Your task to perform on an android device: Show the shopping cart on newegg.com. Add "razer naga" to the cart on newegg.com Image 0: 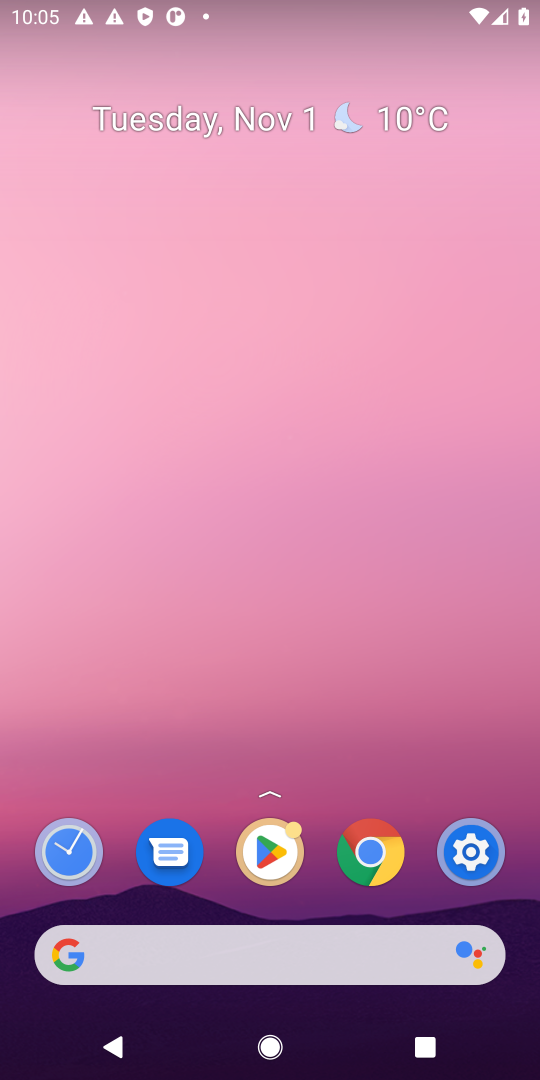
Step 0: press home button
Your task to perform on an android device: Show the shopping cart on newegg.com. Add "razer naga" to the cart on newegg.com Image 1: 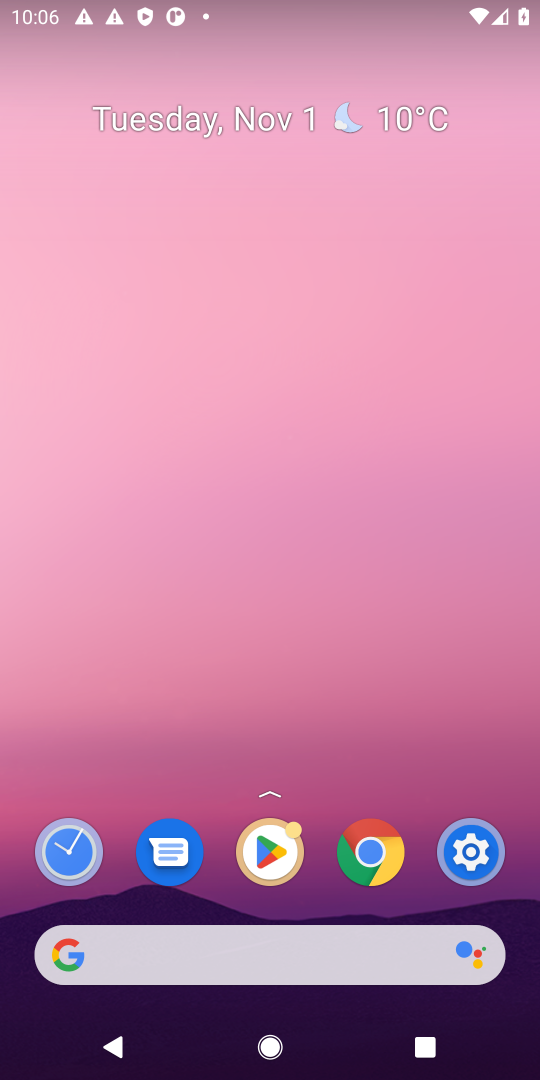
Step 1: click (377, 860)
Your task to perform on an android device: Show the shopping cart on newegg.com. Add "razer naga" to the cart on newegg.com Image 2: 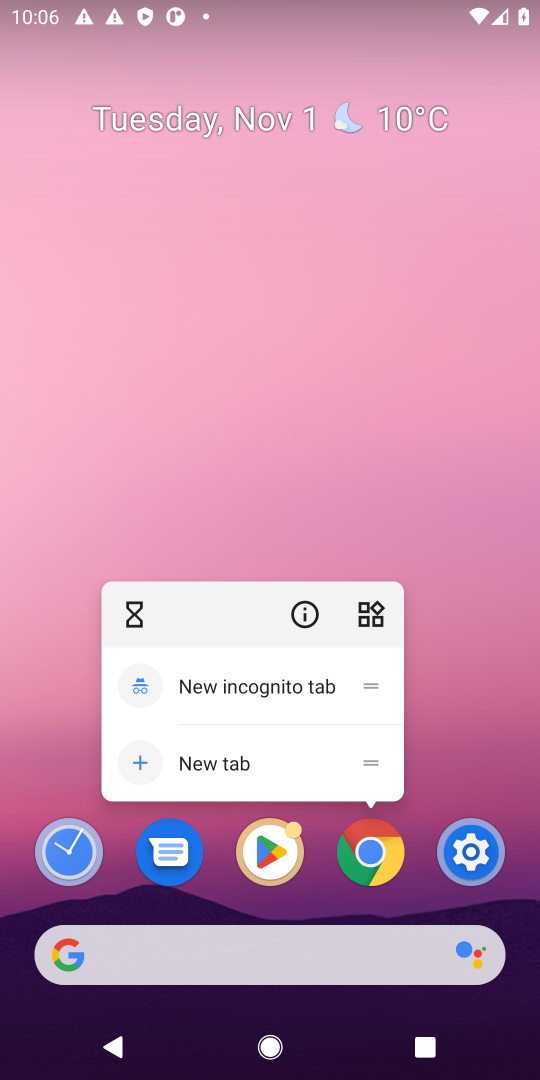
Step 2: click (377, 860)
Your task to perform on an android device: Show the shopping cart on newegg.com. Add "razer naga" to the cart on newegg.com Image 3: 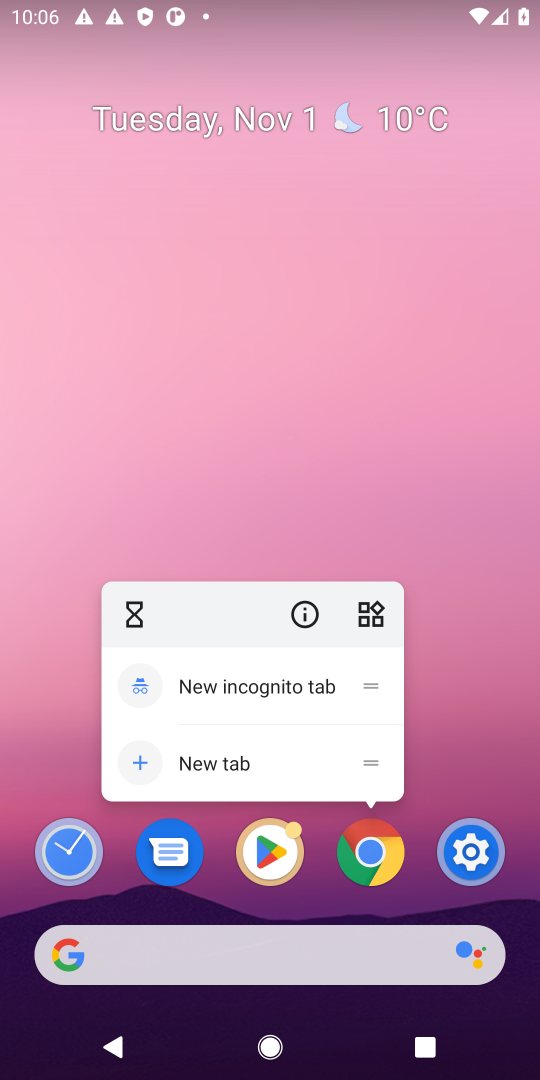
Step 3: click (382, 850)
Your task to perform on an android device: Show the shopping cart on newegg.com. Add "razer naga" to the cart on newegg.com Image 4: 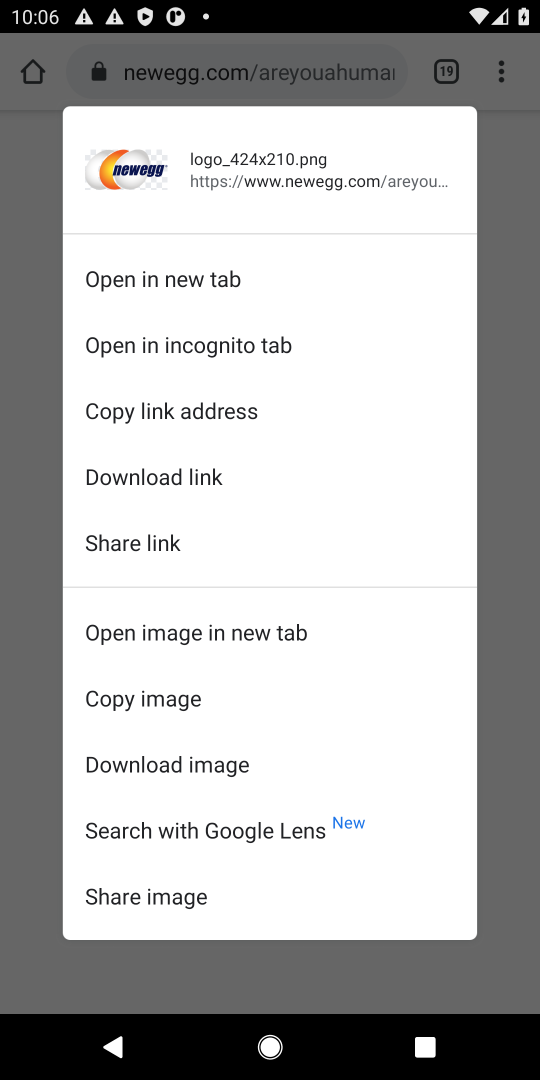
Step 4: press back button
Your task to perform on an android device: Show the shopping cart on newegg.com. Add "razer naga" to the cart on newegg.com Image 5: 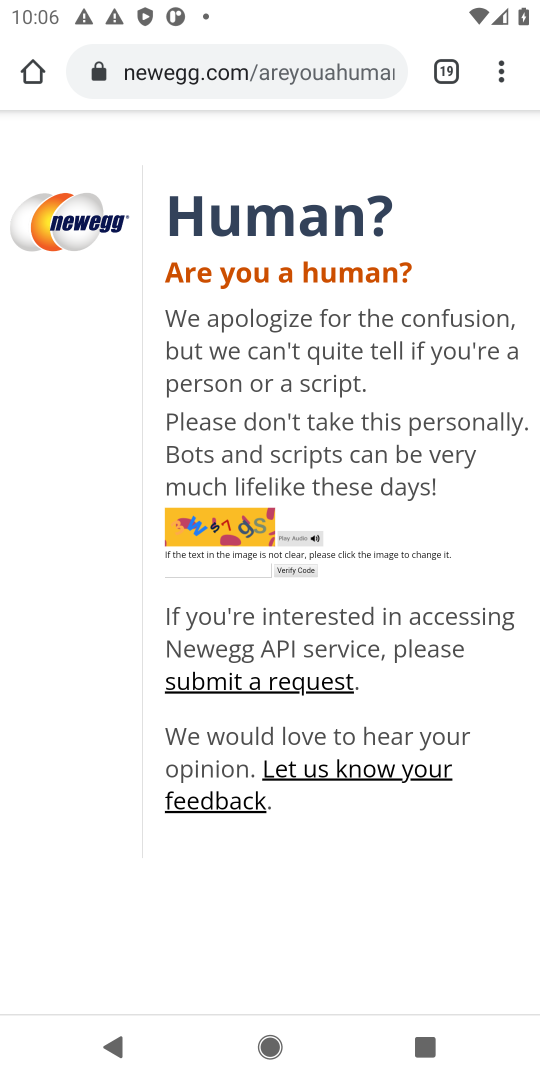
Step 5: press back button
Your task to perform on an android device: Show the shopping cart on newegg.com. Add "razer naga" to the cart on newegg.com Image 6: 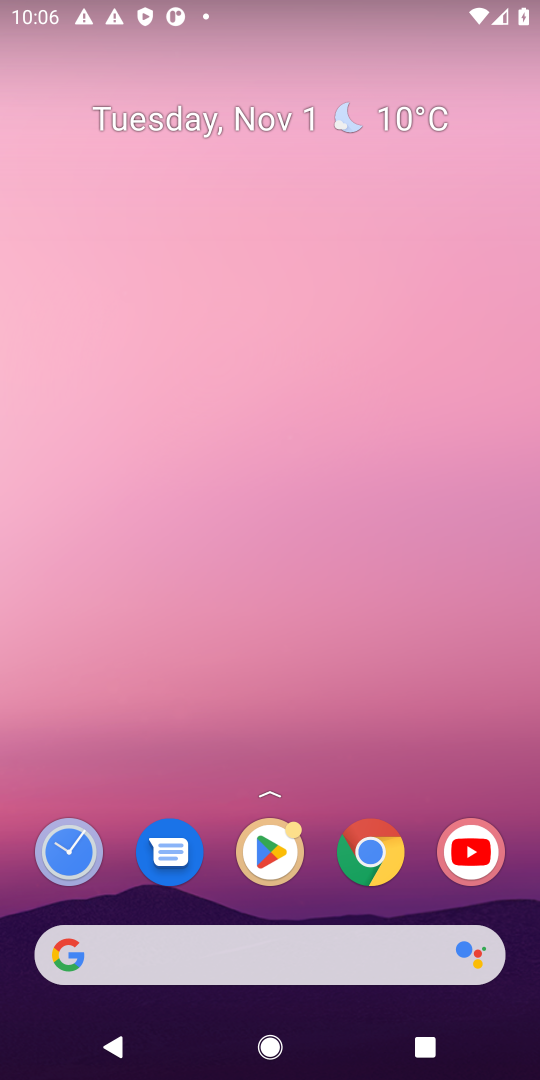
Step 6: click (367, 868)
Your task to perform on an android device: Show the shopping cart on newegg.com. Add "razer naga" to the cart on newegg.com Image 7: 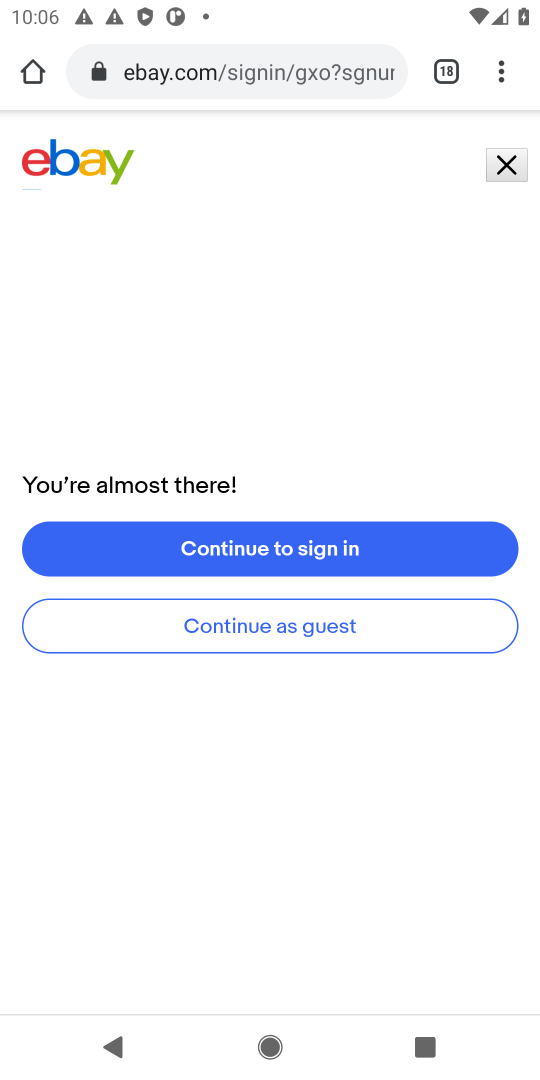
Step 7: press back button
Your task to perform on an android device: Show the shopping cart on newegg.com. Add "razer naga" to the cart on newegg.com Image 8: 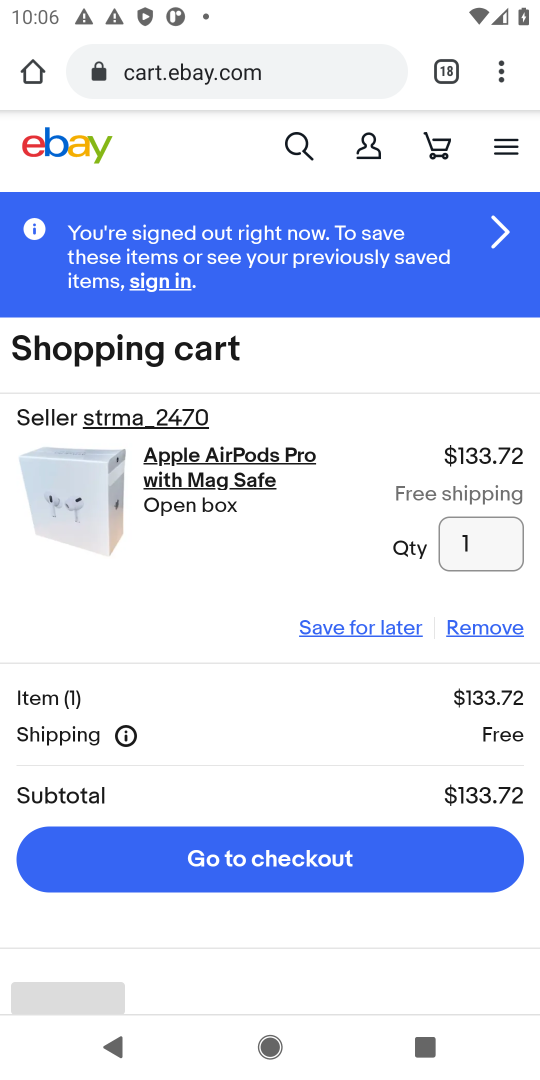
Step 8: press back button
Your task to perform on an android device: Show the shopping cart on newegg.com. Add "razer naga" to the cart on newegg.com Image 9: 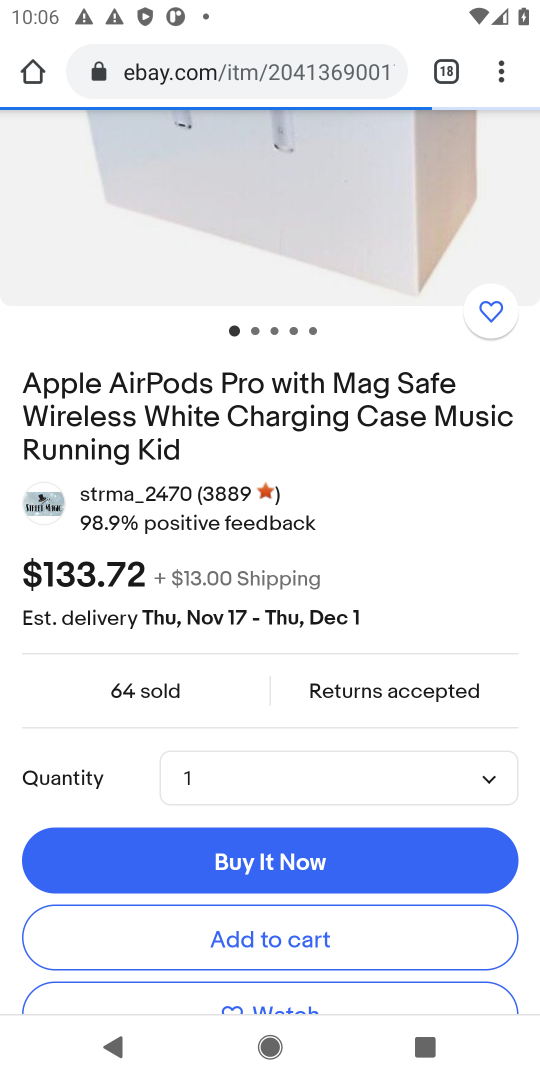
Step 9: press back button
Your task to perform on an android device: Show the shopping cart on newegg.com. Add "razer naga" to the cart on newegg.com Image 10: 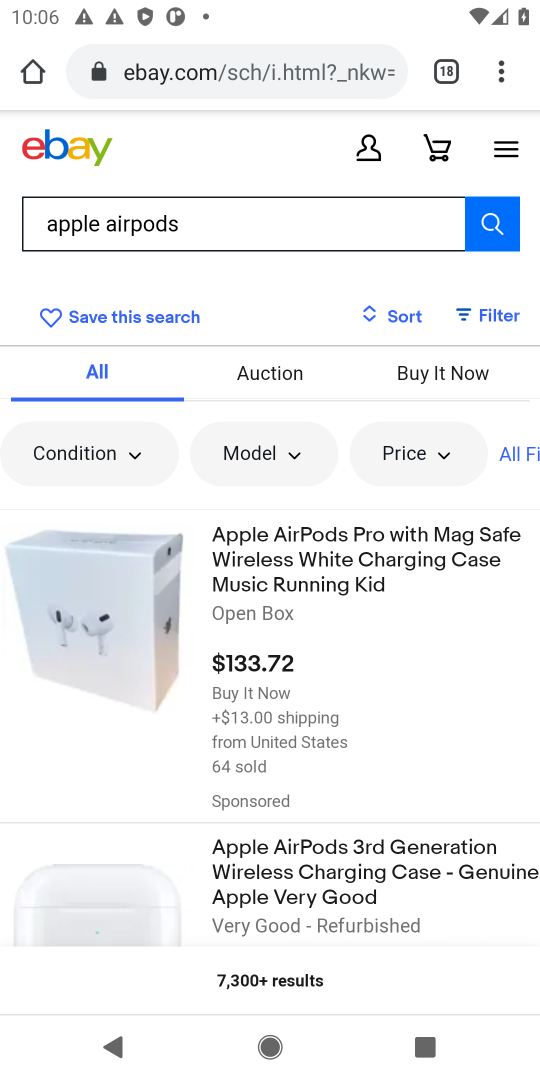
Step 10: press back button
Your task to perform on an android device: Show the shopping cart on newegg.com. Add "razer naga" to the cart on newegg.com Image 11: 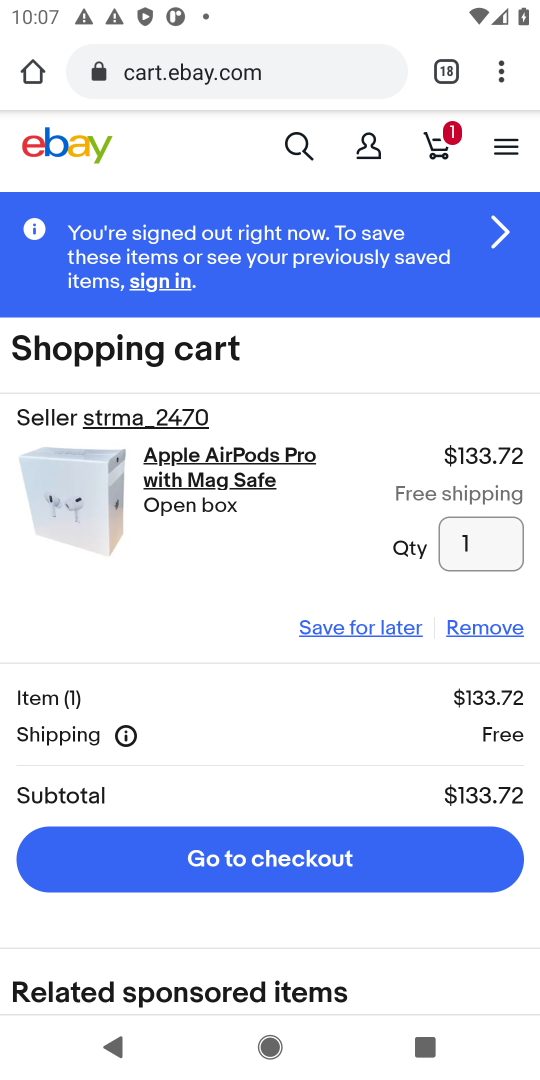
Step 11: press back button
Your task to perform on an android device: Show the shopping cart on newegg.com. Add "razer naga" to the cart on newegg.com Image 12: 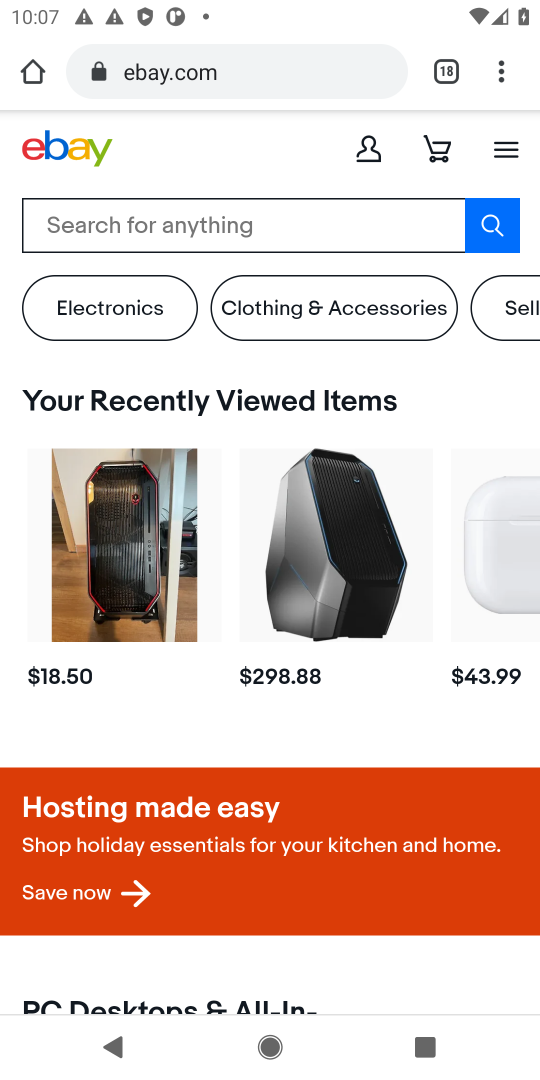
Step 12: press back button
Your task to perform on an android device: Show the shopping cart on newegg.com. Add "razer naga" to the cart on newegg.com Image 13: 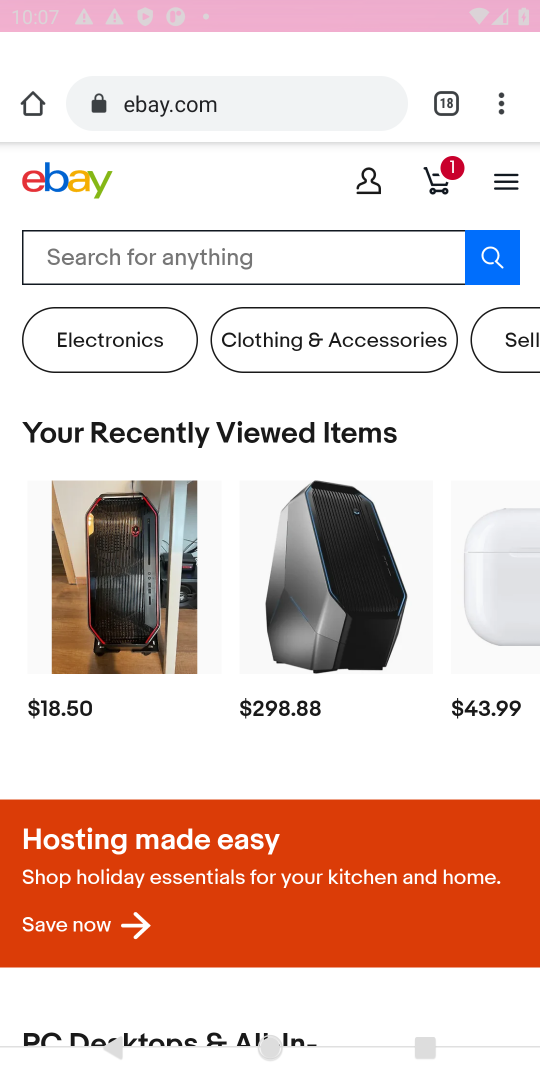
Step 13: press back button
Your task to perform on an android device: Show the shopping cart on newegg.com. Add "razer naga" to the cart on newegg.com Image 14: 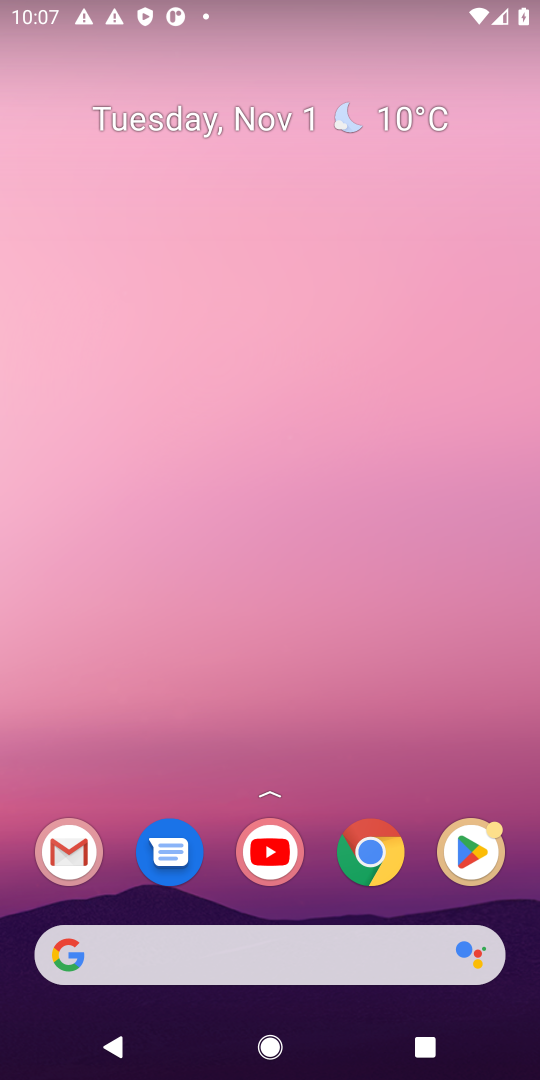
Step 14: click (386, 865)
Your task to perform on an android device: Show the shopping cart on newegg.com. Add "razer naga" to the cart on newegg.com Image 15: 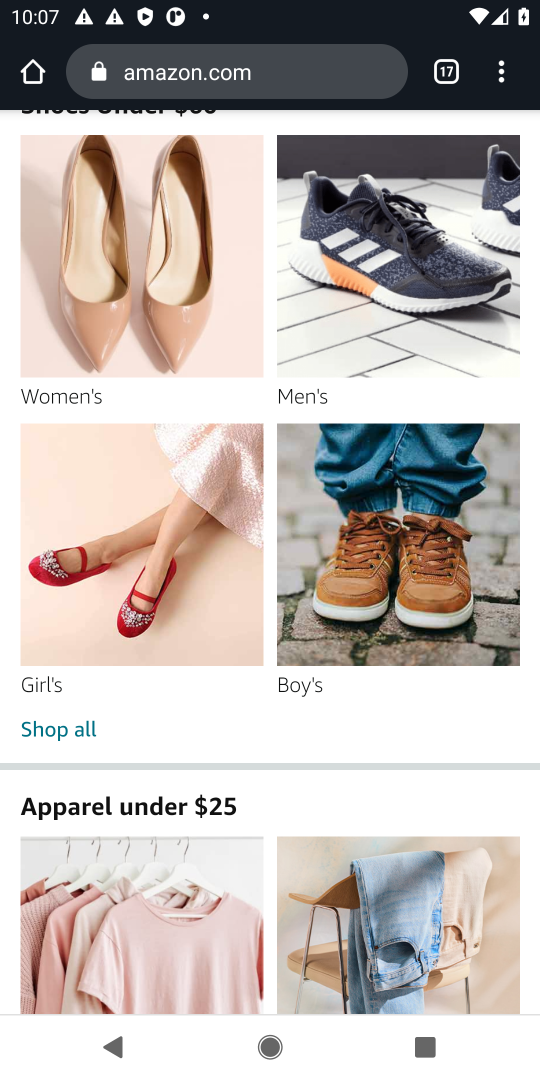
Step 15: press back button
Your task to perform on an android device: Show the shopping cart on newegg.com. Add "razer naga" to the cart on newegg.com Image 16: 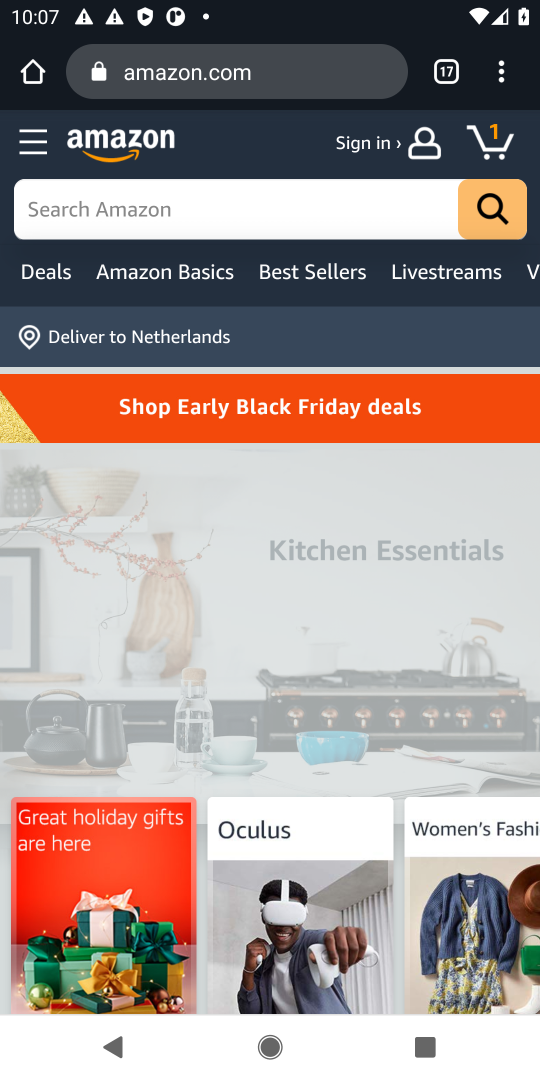
Step 16: press back button
Your task to perform on an android device: Show the shopping cart on newegg.com. Add "razer naga" to the cart on newegg.com Image 17: 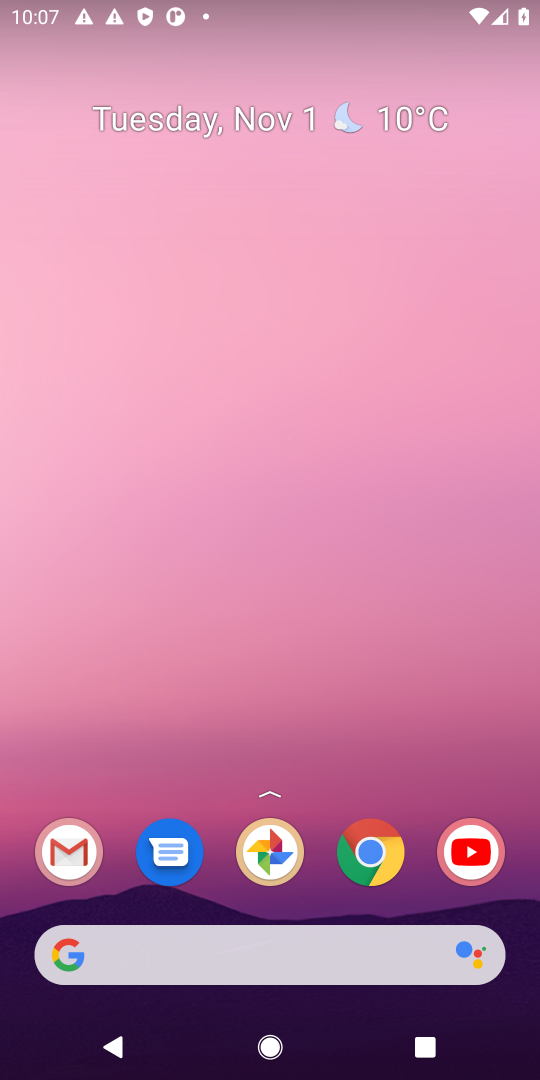
Step 17: click (401, 855)
Your task to perform on an android device: Show the shopping cart on newegg.com. Add "razer naga" to the cart on newegg.com Image 18: 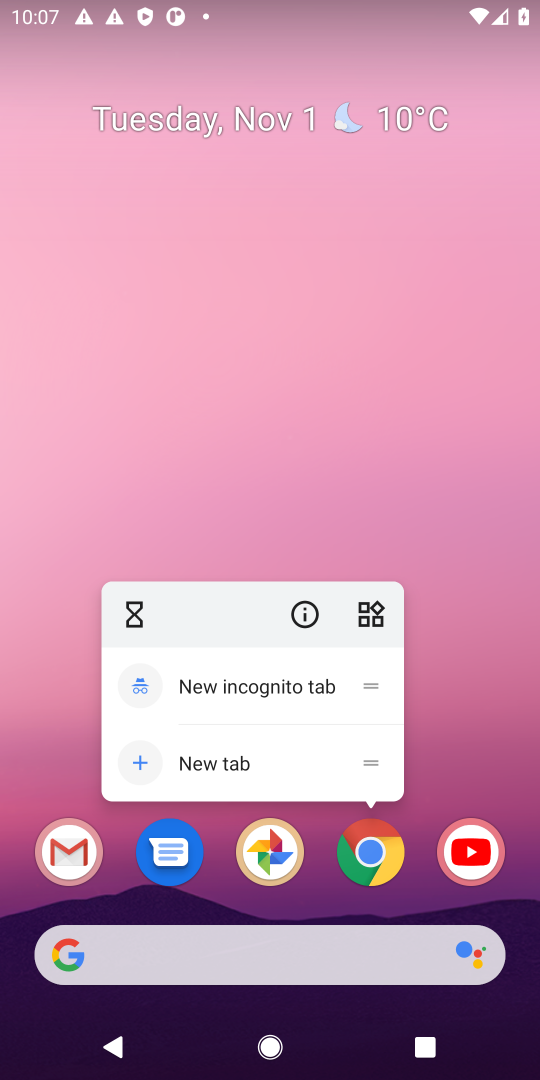
Step 18: click (402, 855)
Your task to perform on an android device: Show the shopping cart on newegg.com. Add "razer naga" to the cart on newegg.com Image 19: 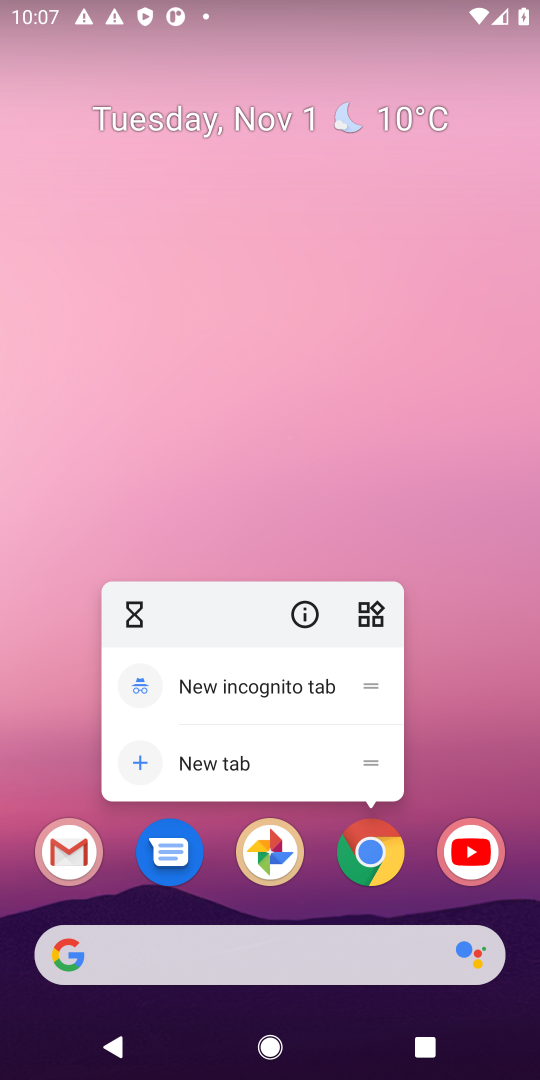
Step 19: click (370, 847)
Your task to perform on an android device: Show the shopping cart on newegg.com. Add "razer naga" to the cart on newegg.com Image 20: 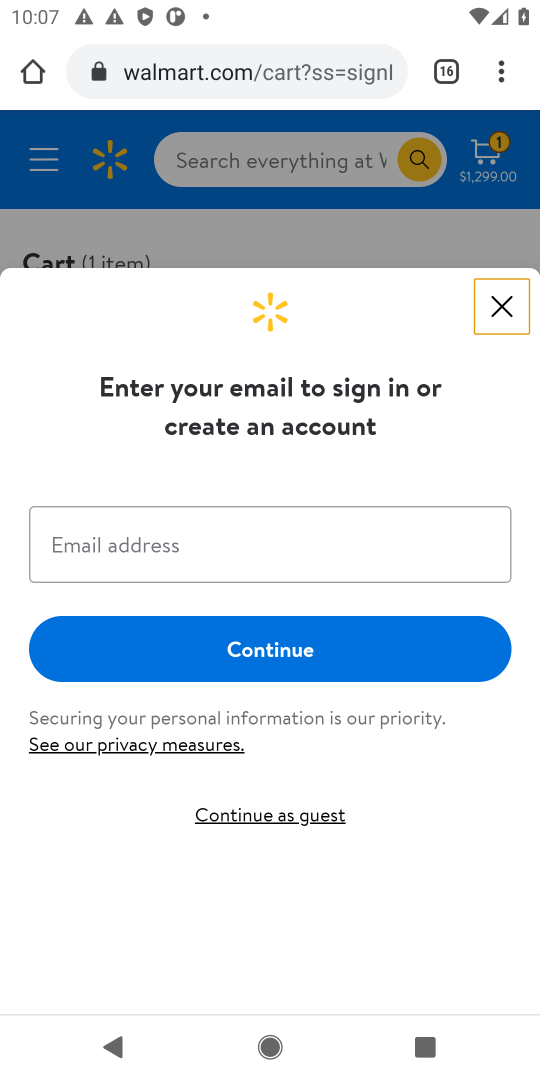
Step 20: click (506, 310)
Your task to perform on an android device: Show the shopping cart on newegg.com. Add "razer naga" to the cart on newegg.com Image 21: 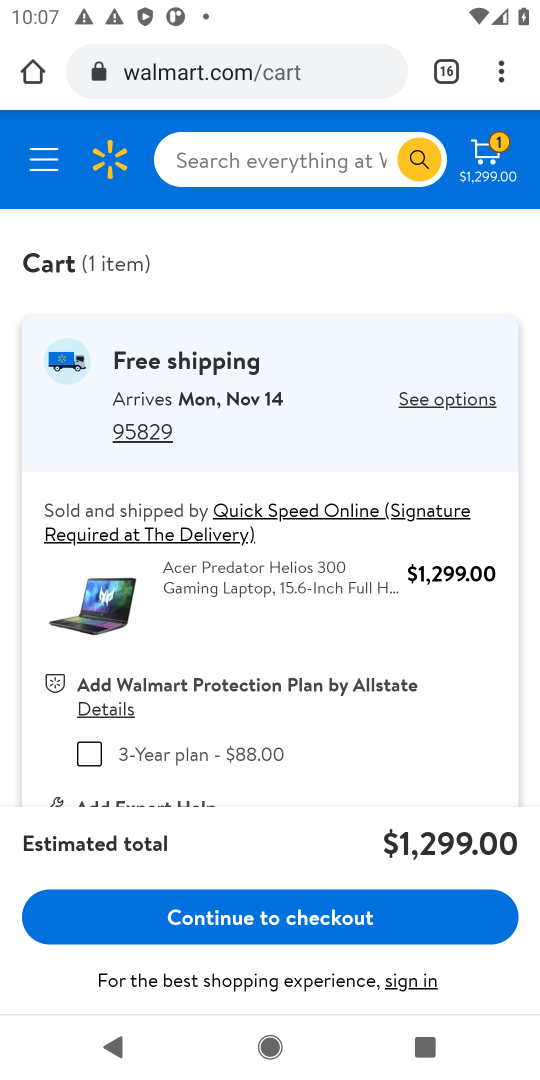
Step 21: click (336, 58)
Your task to perform on an android device: Show the shopping cart on newegg.com. Add "razer naga" to the cart on newegg.com Image 22: 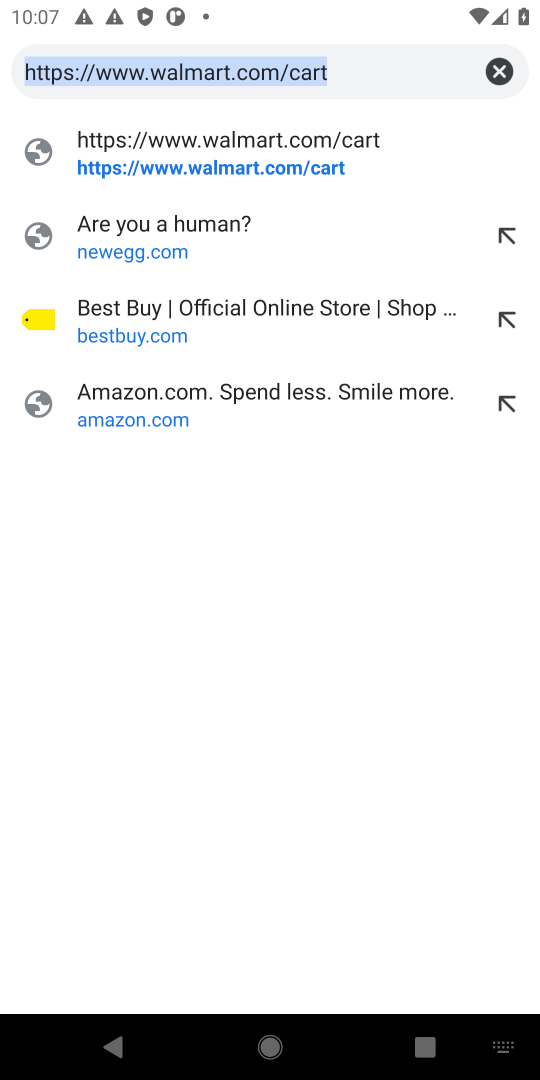
Step 22: click (505, 73)
Your task to perform on an android device: Show the shopping cart on newegg.com. Add "razer naga" to the cart on newegg.com Image 23: 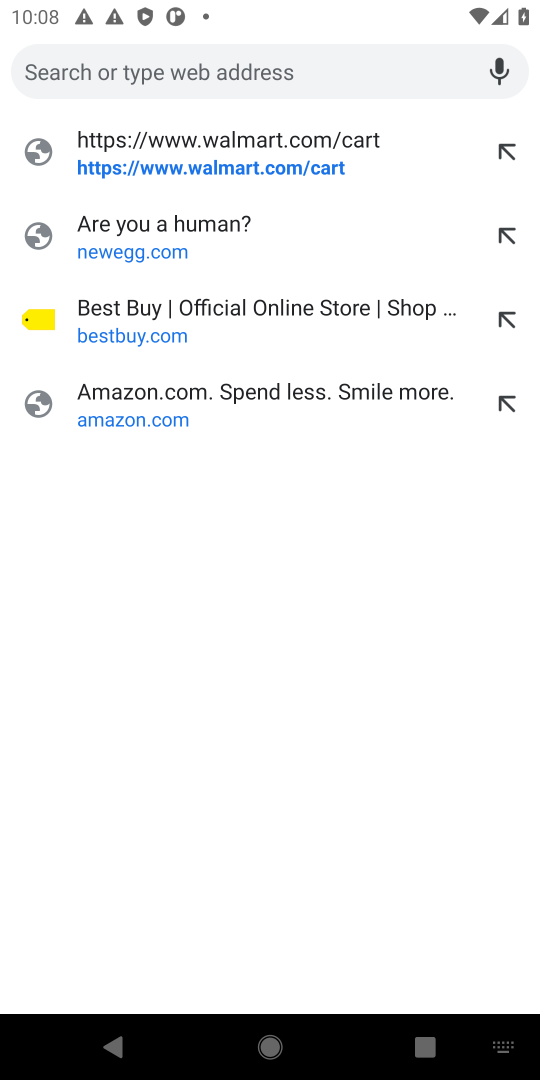
Step 23: type "newegg.com"
Your task to perform on an android device: Show the shopping cart on newegg.com. Add "razer naga" to the cart on newegg.com Image 24: 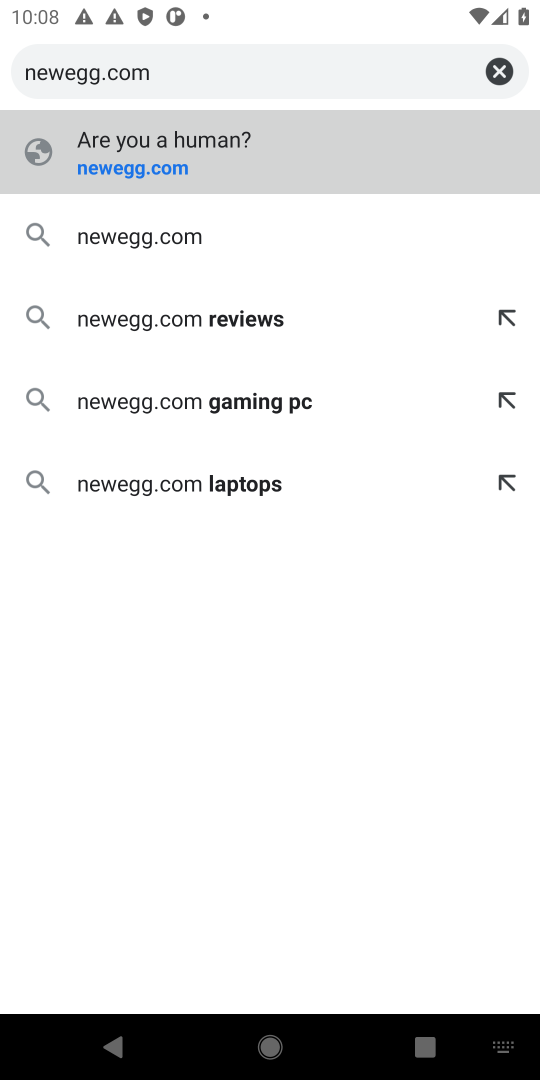
Step 24: press enter
Your task to perform on an android device: Show the shopping cart on newegg.com. Add "razer naga" to the cart on newegg.com Image 25: 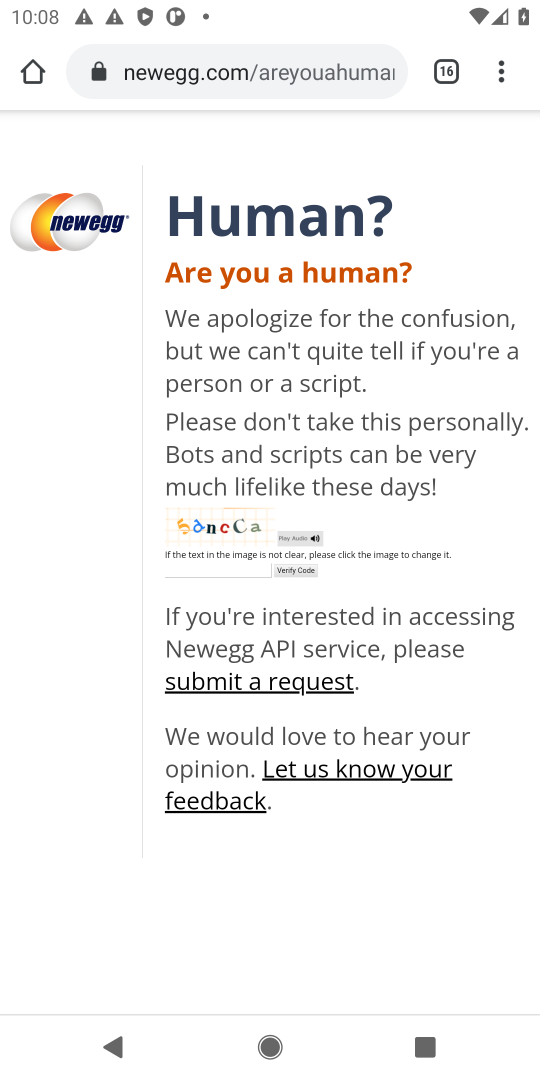
Step 25: task complete